Your task to perform on an android device: Go to accessibility settings Image 0: 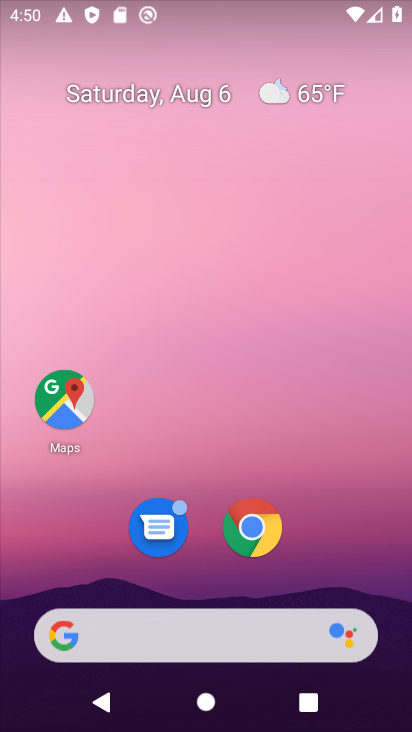
Step 0: click (186, 191)
Your task to perform on an android device: Go to accessibility settings Image 1: 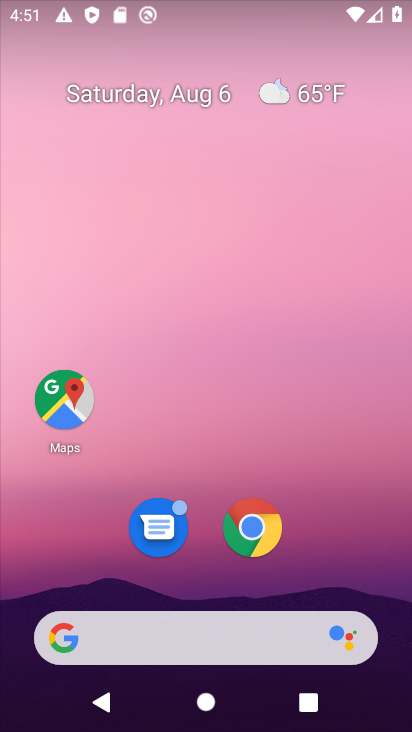
Step 1: drag from (219, 658) to (215, 163)
Your task to perform on an android device: Go to accessibility settings Image 2: 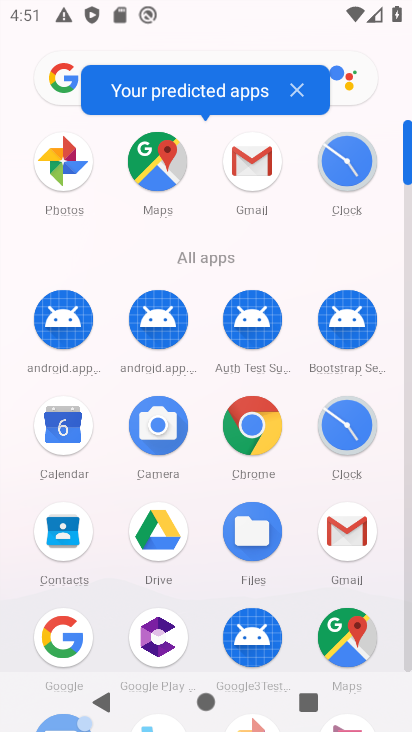
Step 2: drag from (201, 587) to (181, 72)
Your task to perform on an android device: Go to accessibility settings Image 3: 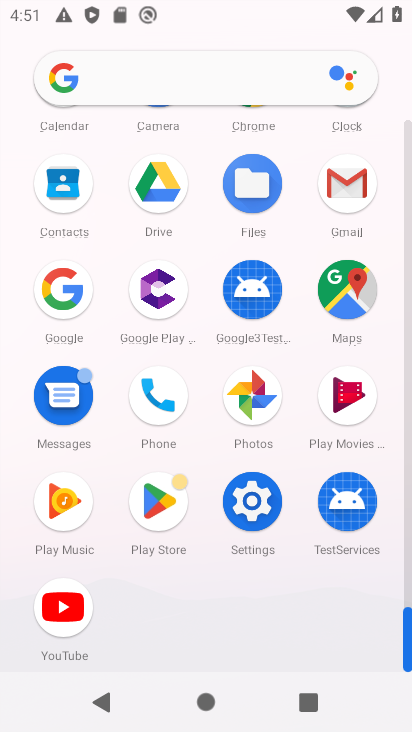
Step 3: click (244, 503)
Your task to perform on an android device: Go to accessibility settings Image 4: 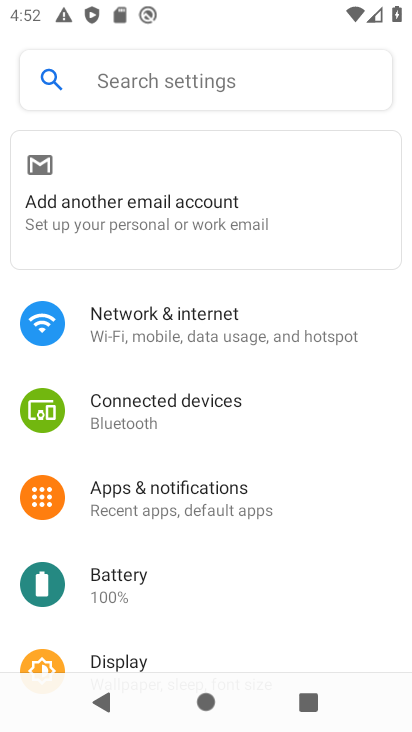
Step 4: drag from (272, 559) to (214, 134)
Your task to perform on an android device: Go to accessibility settings Image 5: 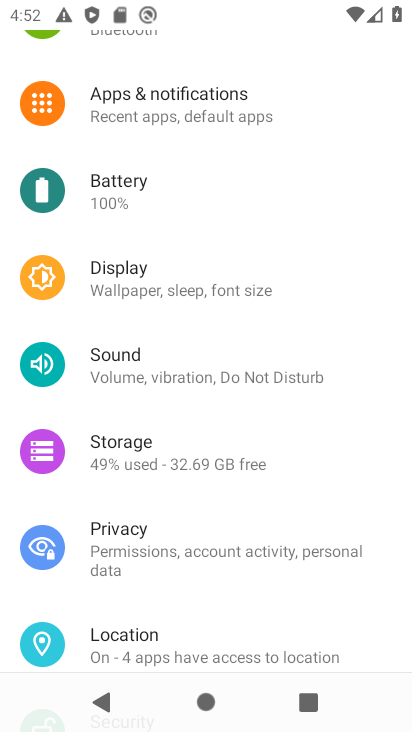
Step 5: drag from (234, 571) to (208, 180)
Your task to perform on an android device: Go to accessibility settings Image 6: 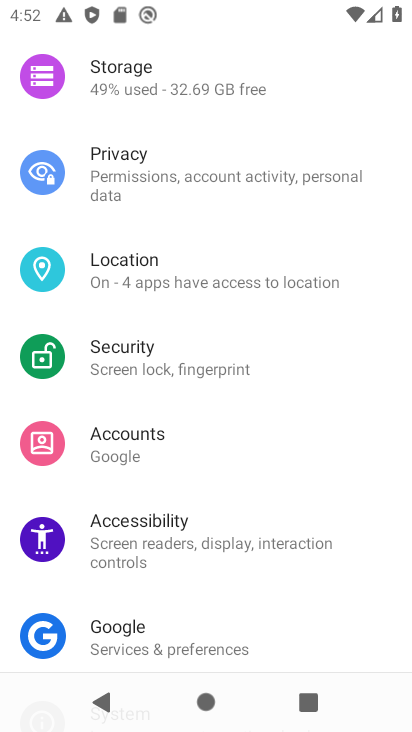
Step 6: click (237, 551)
Your task to perform on an android device: Go to accessibility settings Image 7: 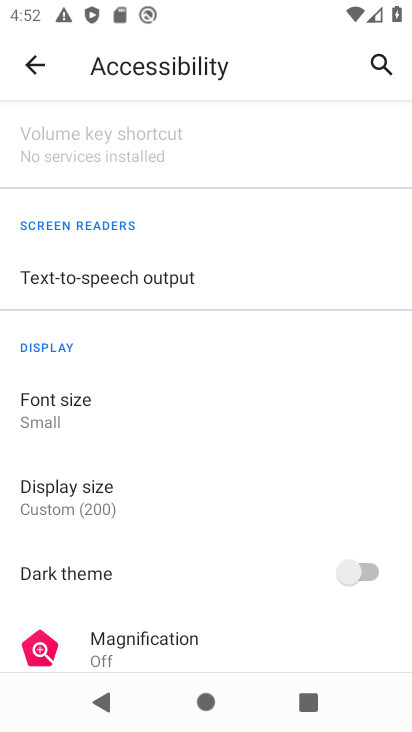
Step 7: task complete